Your task to perform on an android device: Open Maps and search for coffee Image 0: 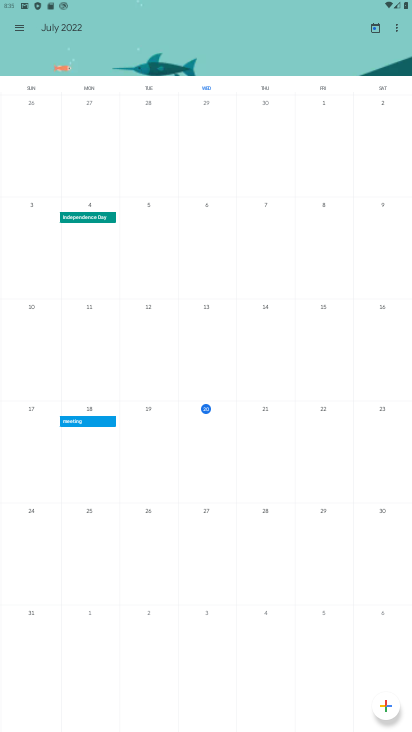
Step 0: press home button
Your task to perform on an android device: Open Maps and search for coffee Image 1: 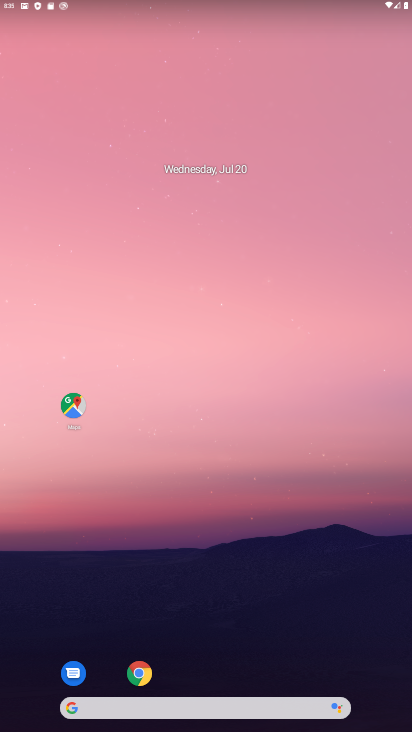
Step 1: click (74, 405)
Your task to perform on an android device: Open Maps and search for coffee Image 2: 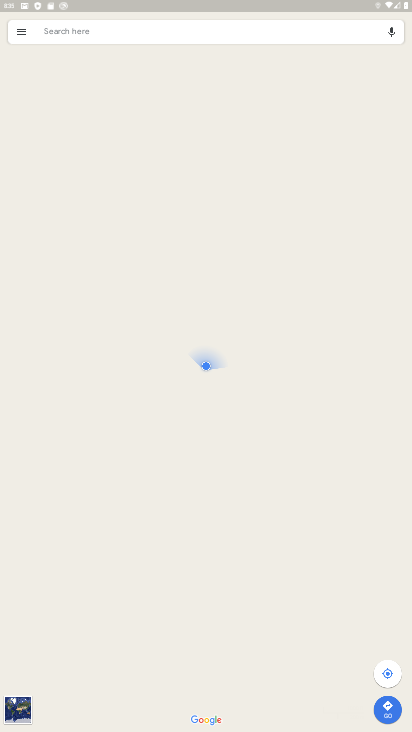
Step 2: click (131, 28)
Your task to perform on an android device: Open Maps and search for coffee Image 3: 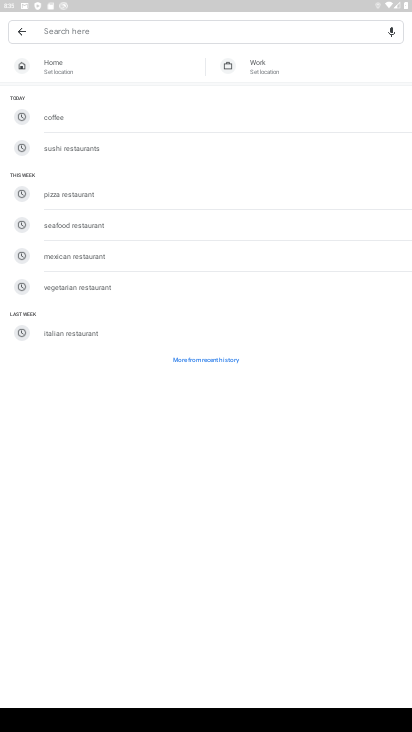
Step 3: type "coffee"
Your task to perform on an android device: Open Maps and search for coffee Image 4: 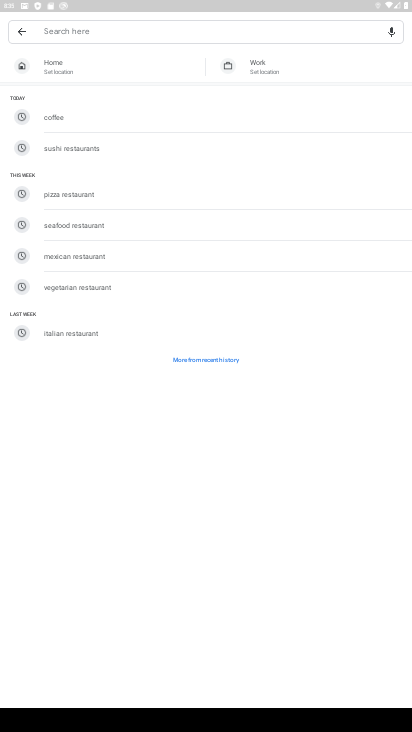
Step 4: click (77, 111)
Your task to perform on an android device: Open Maps and search for coffee Image 5: 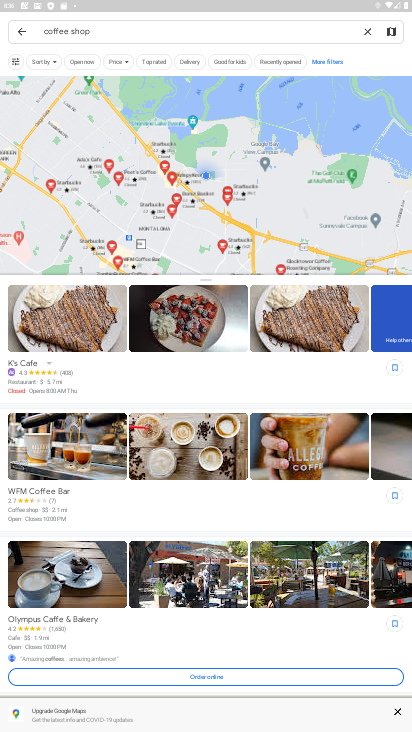
Step 5: task complete